Your task to perform on an android device: Set the phone to "Do not disturb". Image 0: 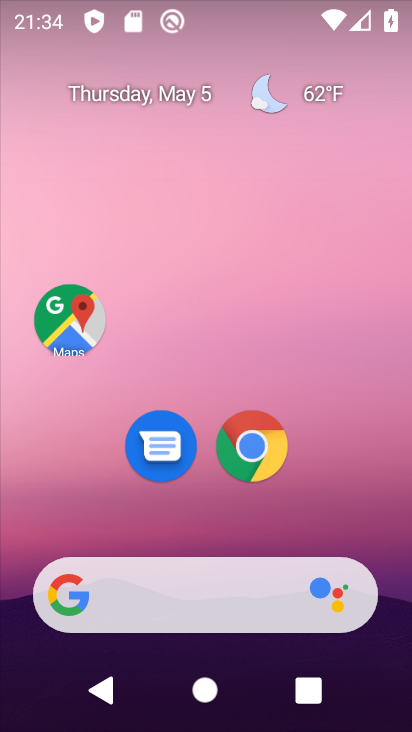
Step 0: drag from (254, 584) to (211, 156)
Your task to perform on an android device: Set the phone to "Do not disturb". Image 1: 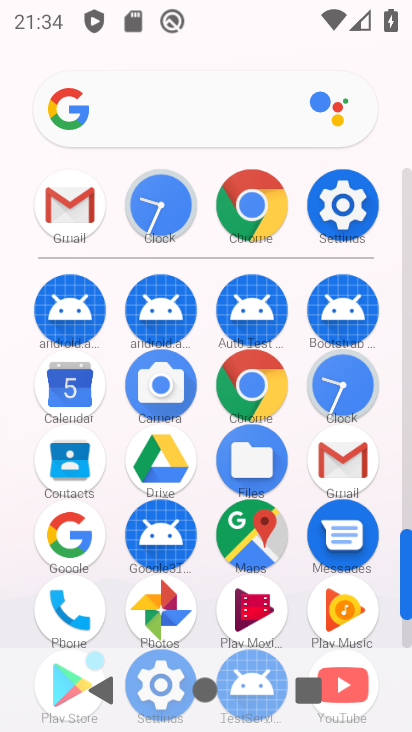
Step 1: click (351, 219)
Your task to perform on an android device: Set the phone to "Do not disturb". Image 2: 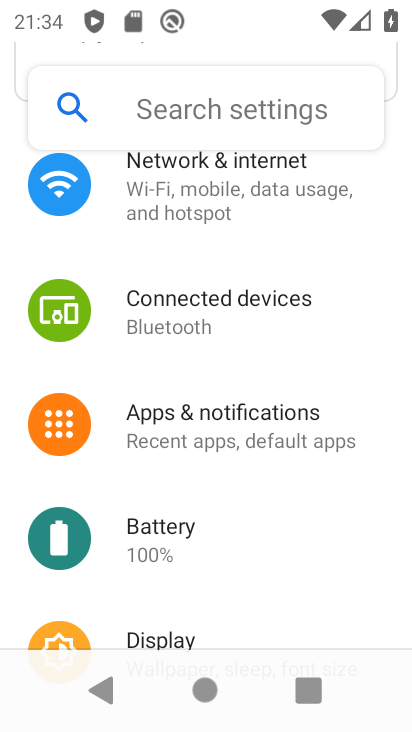
Step 2: click (273, 108)
Your task to perform on an android device: Set the phone to "Do not disturb". Image 3: 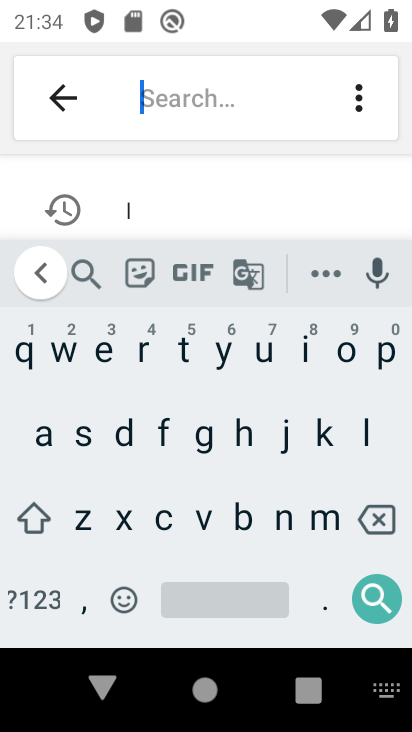
Step 3: click (117, 429)
Your task to perform on an android device: Set the phone to "Do not disturb". Image 4: 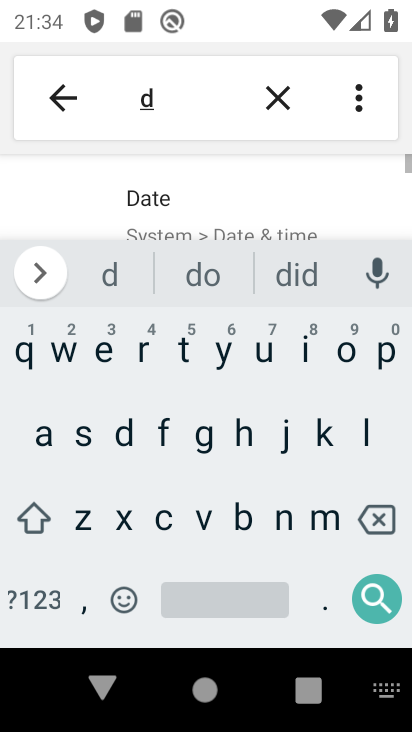
Step 4: click (284, 519)
Your task to perform on an android device: Set the phone to "Do not disturb". Image 5: 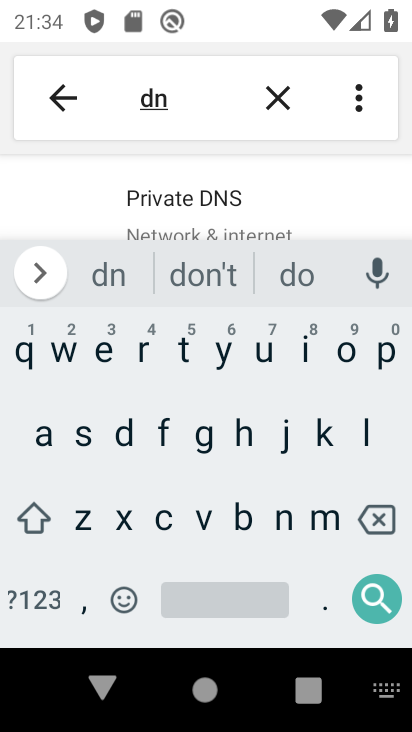
Step 5: click (132, 439)
Your task to perform on an android device: Set the phone to "Do not disturb". Image 6: 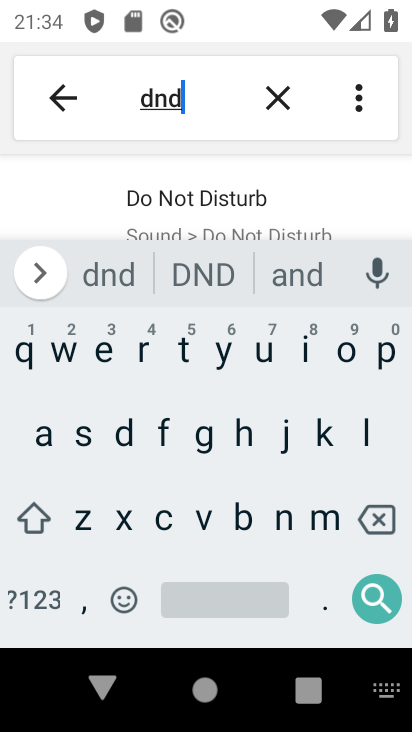
Step 6: click (191, 193)
Your task to perform on an android device: Set the phone to "Do not disturb". Image 7: 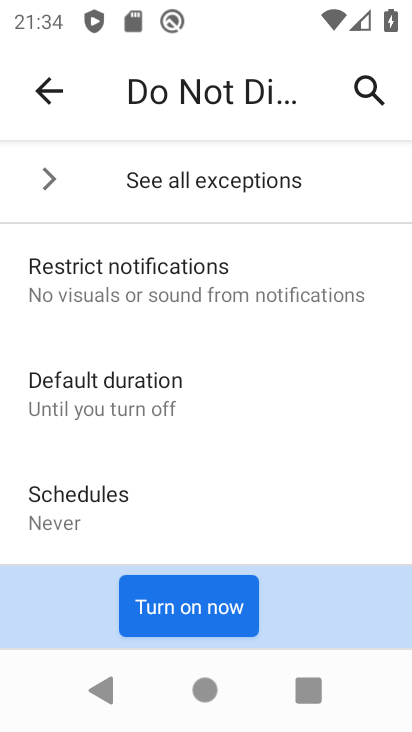
Step 7: click (191, 606)
Your task to perform on an android device: Set the phone to "Do not disturb". Image 8: 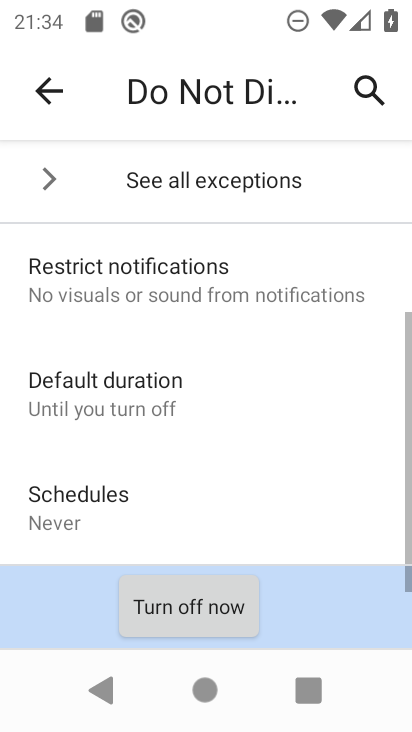
Step 8: task complete